Your task to perform on an android device: Open Amazon Image 0: 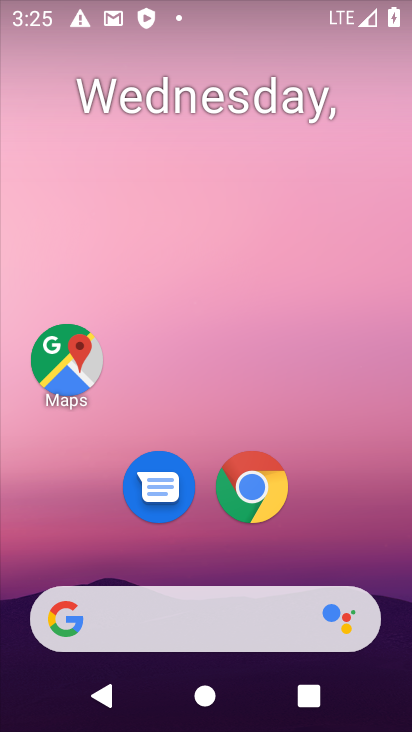
Step 0: drag from (294, 13) to (255, 0)
Your task to perform on an android device: Open Amazon Image 1: 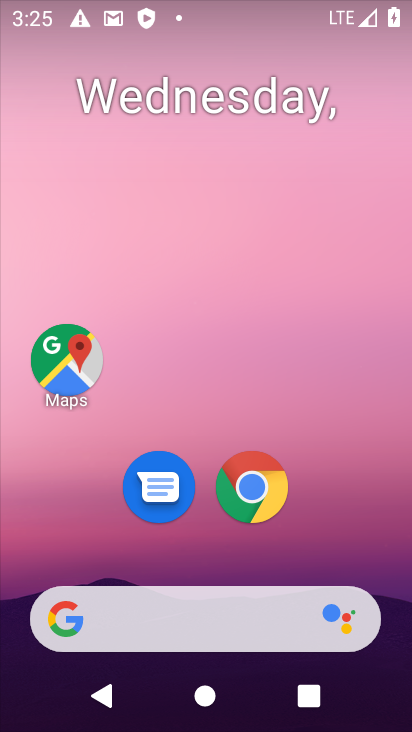
Step 1: drag from (378, 526) to (298, 95)
Your task to perform on an android device: Open Amazon Image 2: 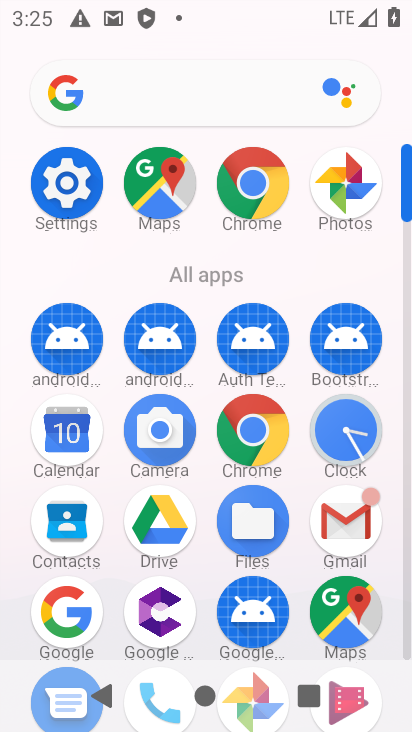
Step 2: click (252, 438)
Your task to perform on an android device: Open Amazon Image 3: 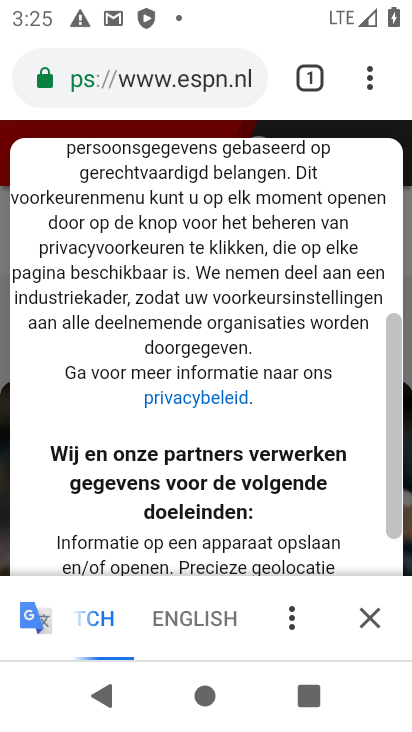
Step 3: click (223, 81)
Your task to perform on an android device: Open Amazon Image 4: 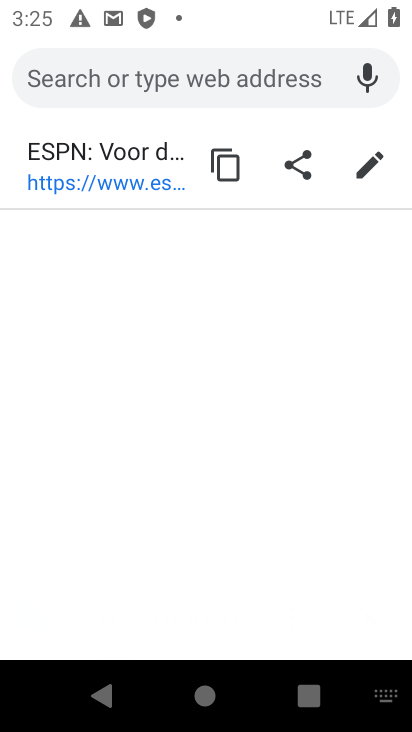
Step 4: type "amazon"
Your task to perform on an android device: Open Amazon Image 5: 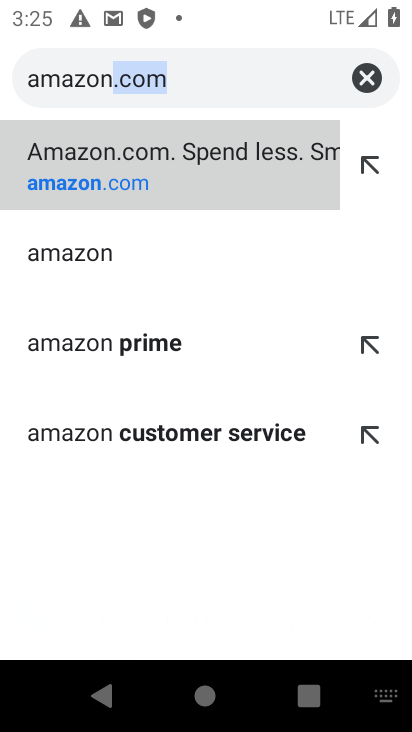
Step 5: click (203, 188)
Your task to perform on an android device: Open Amazon Image 6: 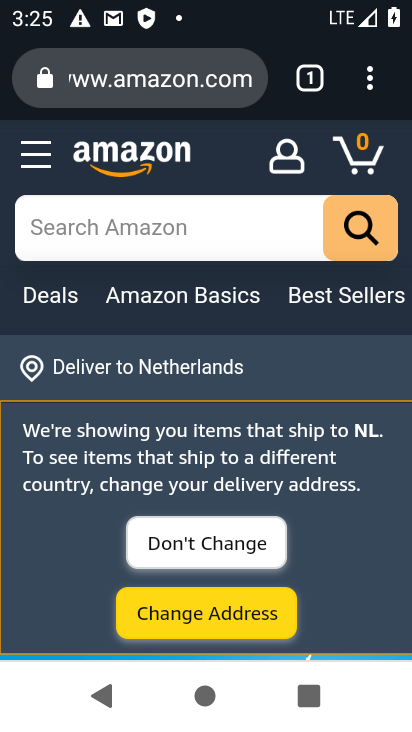
Step 6: task complete